Your task to perform on an android device: Add "logitech g910" to the cart on ebay, then select checkout. Image 0: 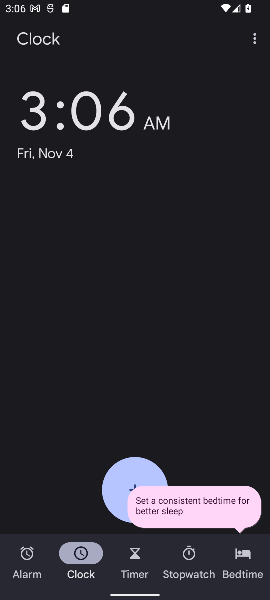
Step 0: press home button
Your task to perform on an android device: Add "logitech g910" to the cart on ebay, then select checkout. Image 1: 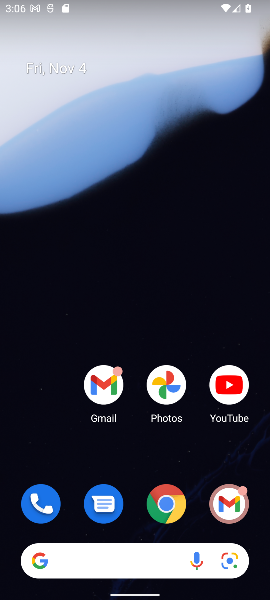
Step 1: click (168, 509)
Your task to perform on an android device: Add "logitech g910" to the cart on ebay, then select checkout. Image 2: 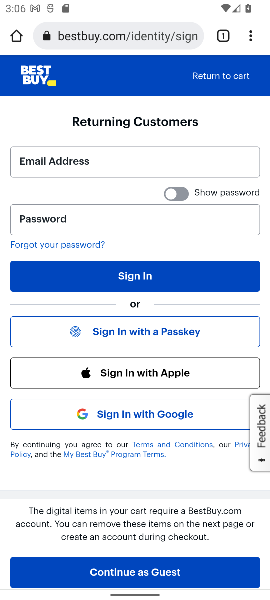
Step 2: click (115, 30)
Your task to perform on an android device: Add "logitech g910" to the cart on ebay, then select checkout. Image 3: 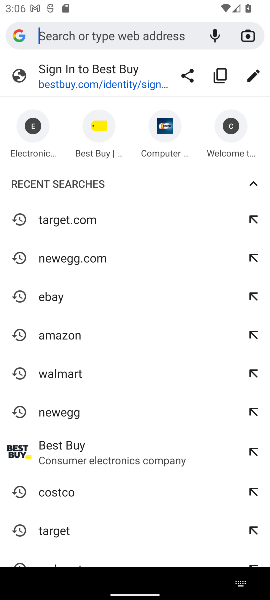
Step 3: click (52, 300)
Your task to perform on an android device: Add "logitech g910" to the cart on ebay, then select checkout. Image 4: 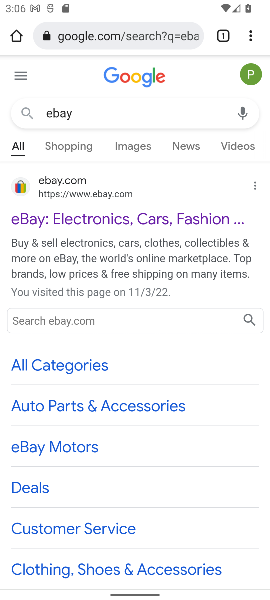
Step 4: click (62, 217)
Your task to perform on an android device: Add "logitech g910" to the cart on ebay, then select checkout. Image 5: 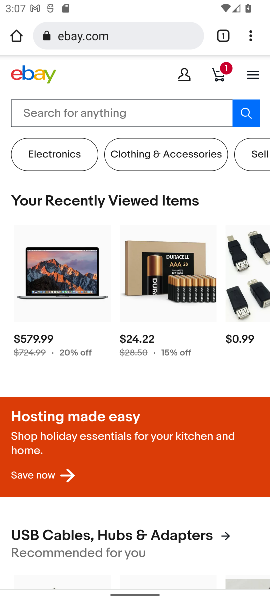
Step 5: click (106, 114)
Your task to perform on an android device: Add "logitech g910" to the cart on ebay, then select checkout. Image 6: 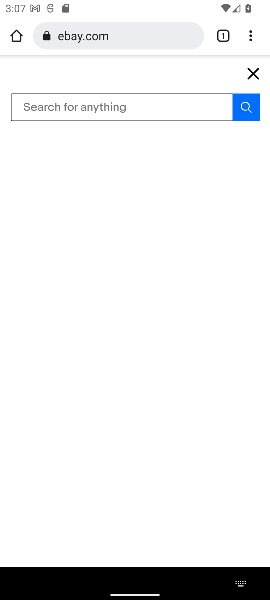
Step 6: type "logitech g910"
Your task to perform on an android device: Add "logitech g910" to the cart on ebay, then select checkout. Image 7: 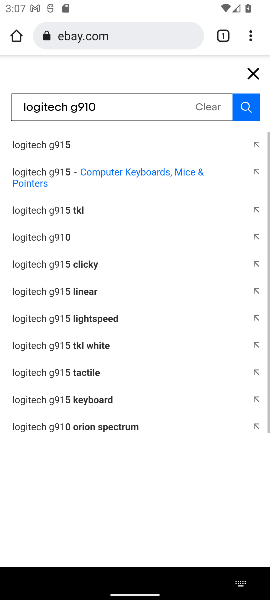
Step 7: click (42, 241)
Your task to perform on an android device: Add "logitech g910" to the cart on ebay, then select checkout. Image 8: 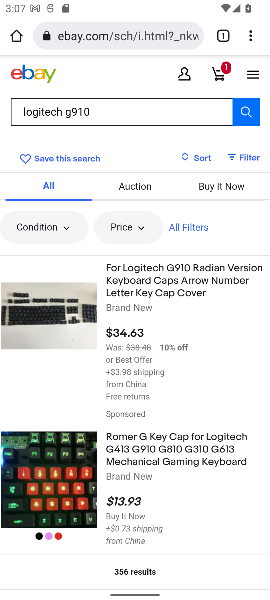
Step 8: click (129, 306)
Your task to perform on an android device: Add "logitech g910" to the cart on ebay, then select checkout. Image 9: 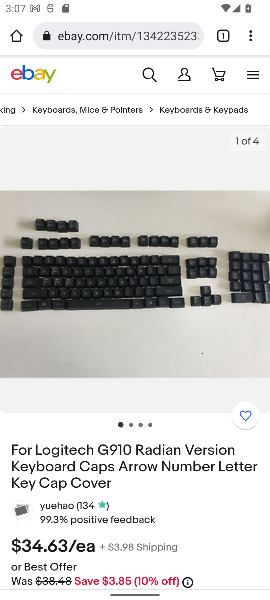
Step 9: drag from (146, 457) to (169, 175)
Your task to perform on an android device: Add "logitech g910" to the cart on ebay, then select checkout. Image 10: 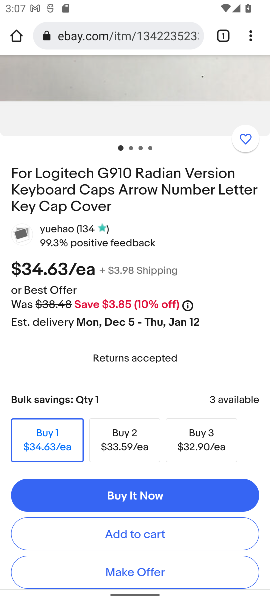
Step 10: click (110, 533)
Your task to perform on an android device: Add "logitech g910" to the cart on ebay, then select checkout. Image 11: 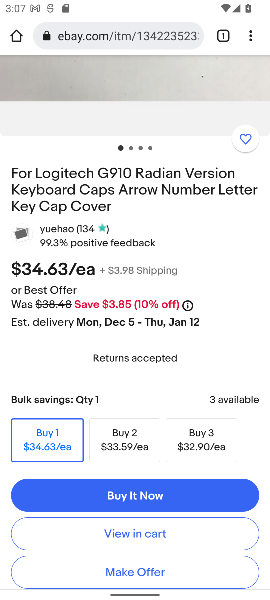
Step 11: click (136, 532)
Your task to perform on an android device: Add "logitech g910" to the cart on ebay, then select checkout. Image 12: 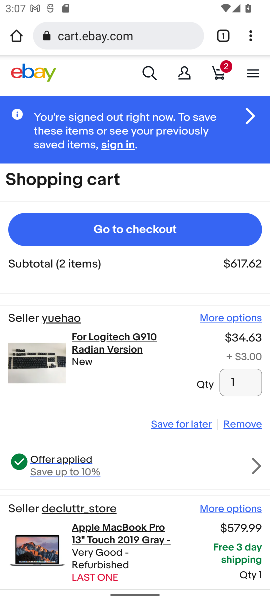
Step 12: click (126, 231)
Your task to perform on an android device: Add "logitech g910" to the cart on ebay, then select checkout. Image 13: 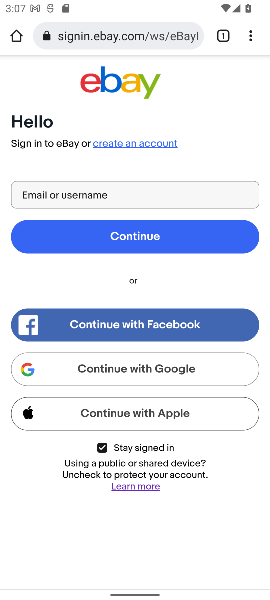
Step 13: task complete